Your task to perform on an android device: set an alarm Image 0: 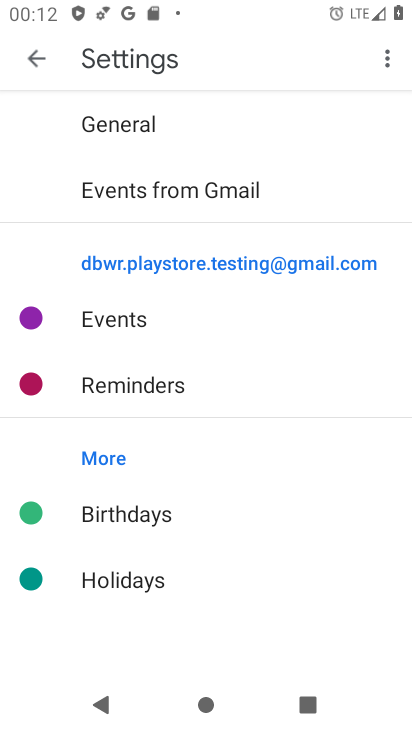
Step 0: press home button
Your task to perform on an android device: set an alarm Image 1: 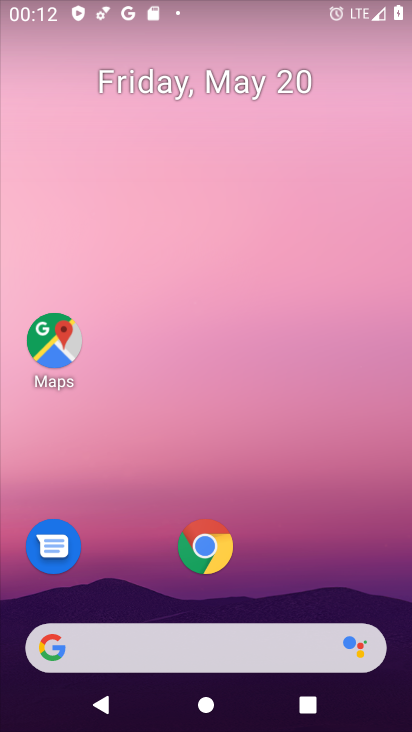
Step 1: drag from (277, 584) to (310, 131)
Your task to perform on an android device: set an alarm Image 2: 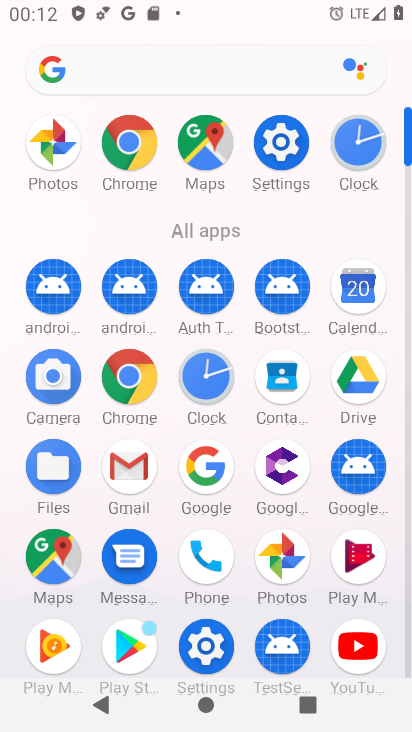
Step 2: click (213, 377)
Your task to perform on an android device: set an alarm Image 3: 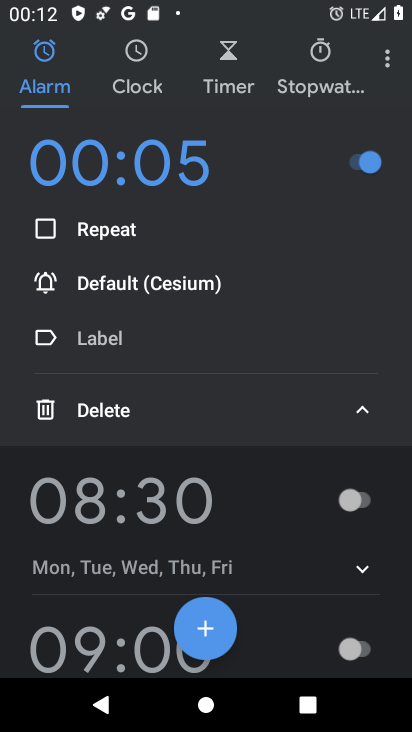
Step 3: click (394, 58)
Your task to perform on an android device: set an alarm Image 4: 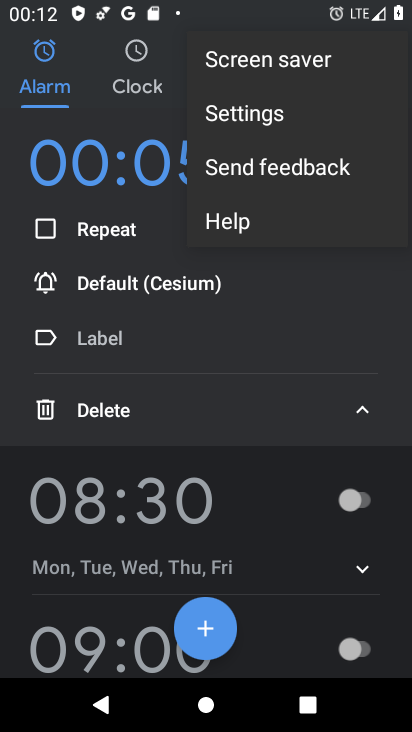
Step 4: click (57, 78)
Your task to perform on an android device: set an alarm Image 5: 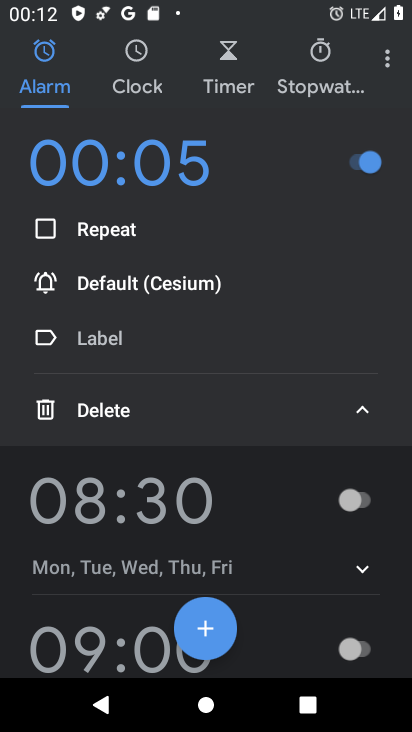
Step 5: click (201, 628)
Your task to perform on an android device: set an alarm Image 6: 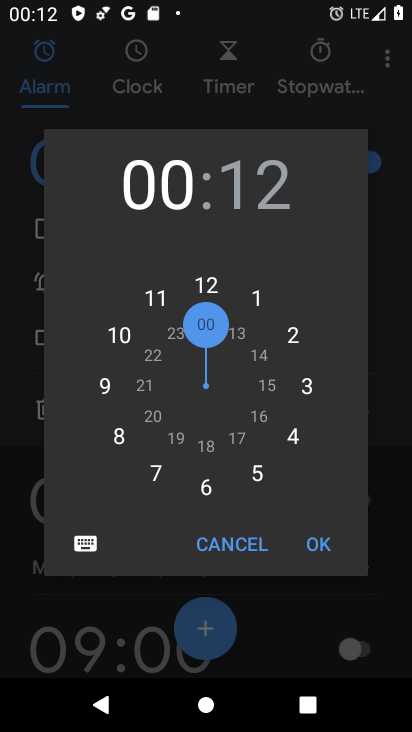
Step 6: click (334, 546)
Your task to perform on an android device: set an alarm Image 7: 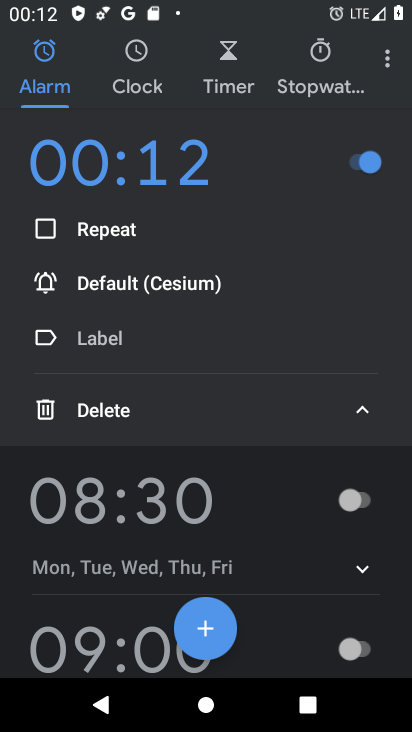
Step 7: task complete